Your task to perform on an android device: change the clock display to show seconds Image 0: 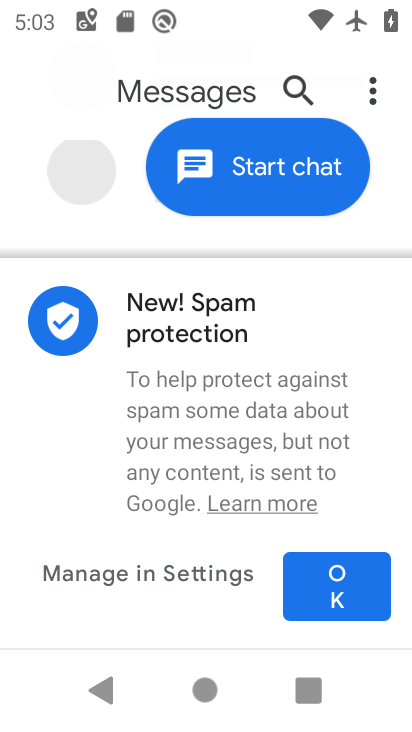
Step 0: press home button
Your task to perform on an android device: change the clock display to show seconds Image 1: 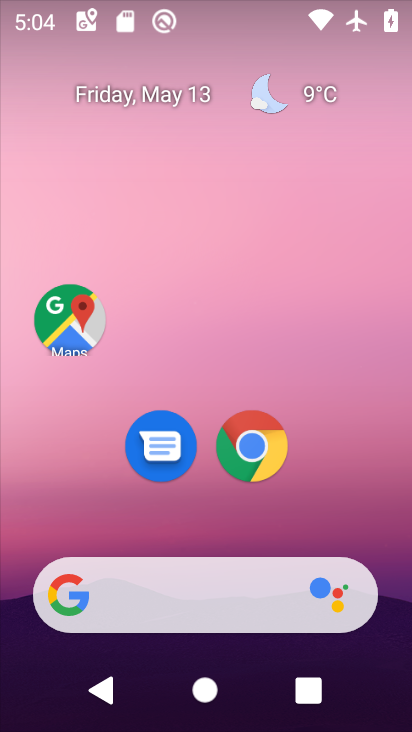
Step 1: drag from (188, 522) to (255, 8)
Your task to perform on an android device: change the clock display to show seconds Image 2: 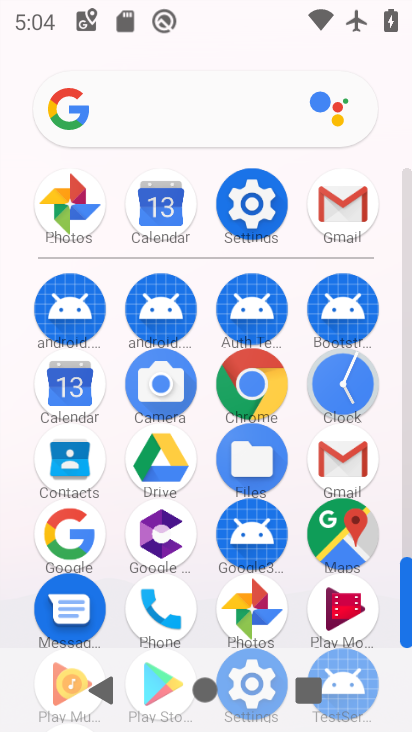
Step 2: click (346, 380)
Your task to perform on an android device: change the clock display to show seconds Image 3: 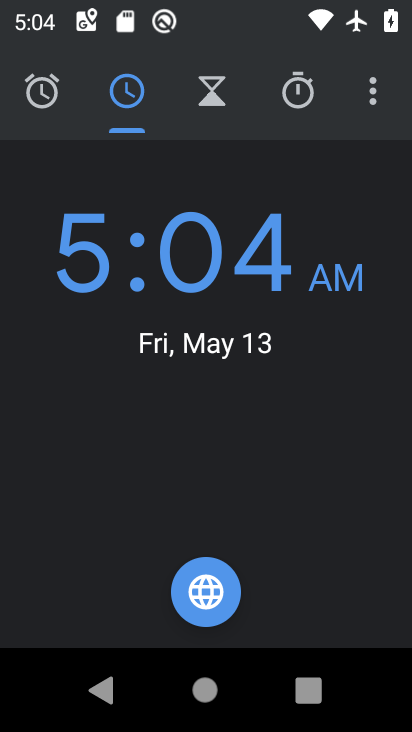
Step 3: click (367, 109)
Your task to perform on an android device: change the clock display to show seconds Image 4: 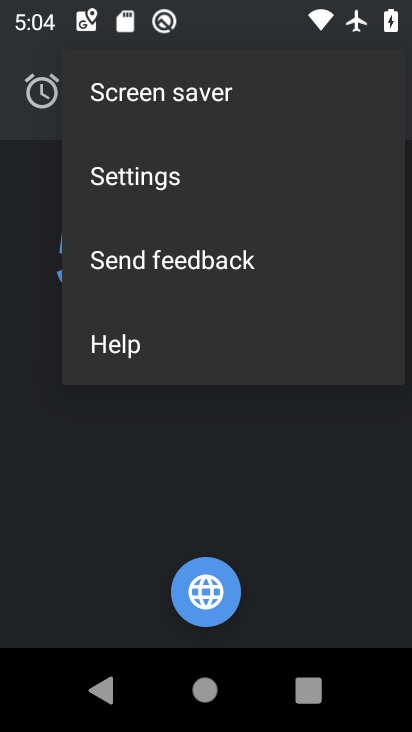
Step 4: click (213, 188)
Your task to perform on an android device: change the clock display to show seconds Image 5: 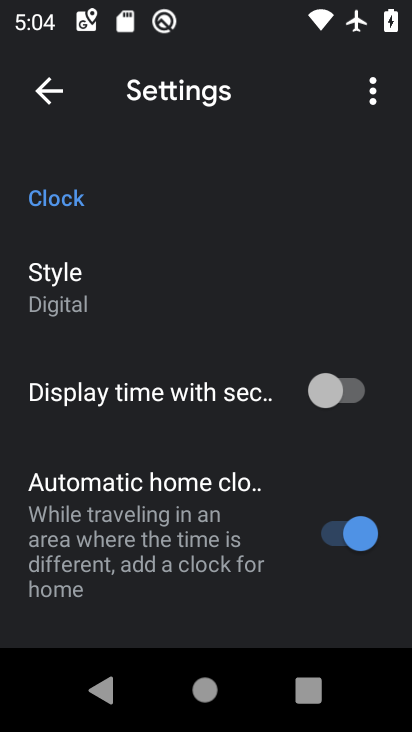
Step 5: click (338, 394)
Your task to perform on an android device: change the clock display to show seconds Image 6: 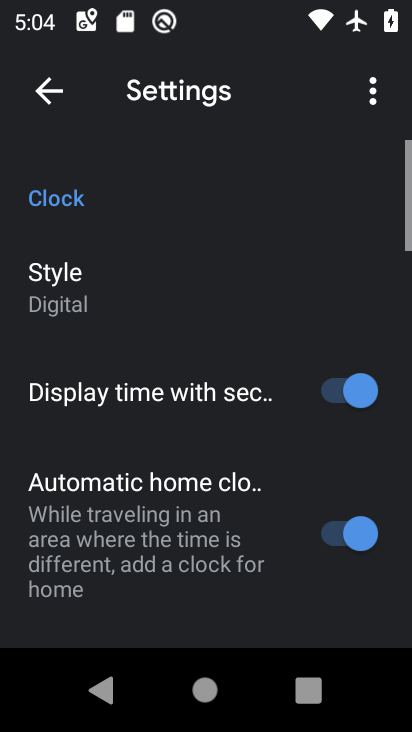
Step 6: task complete